Your task to perform on an android device: Do I have any events tomorrow? Image 0: 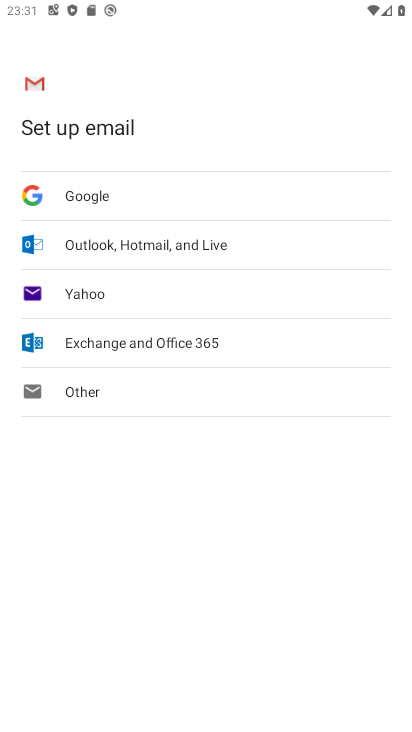
Step 0: press home button
Your task to perform on an android device: Do I have any events tomorrow? Image 1: 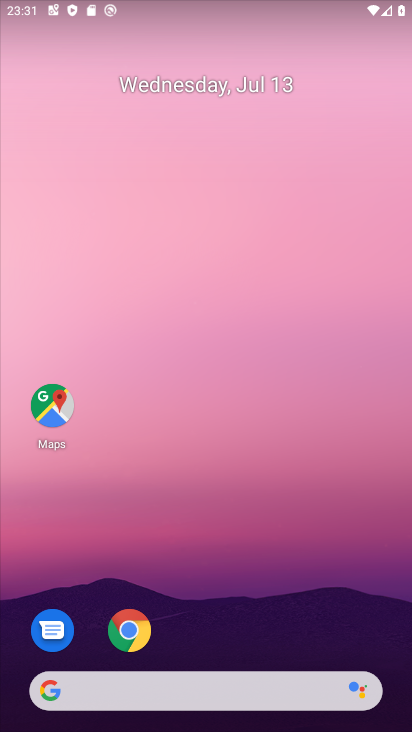
Step 1: drag from (329, 628) to (377, 232)
Your task to perform on an android device: Do I have any events tomorrow? Image 2: 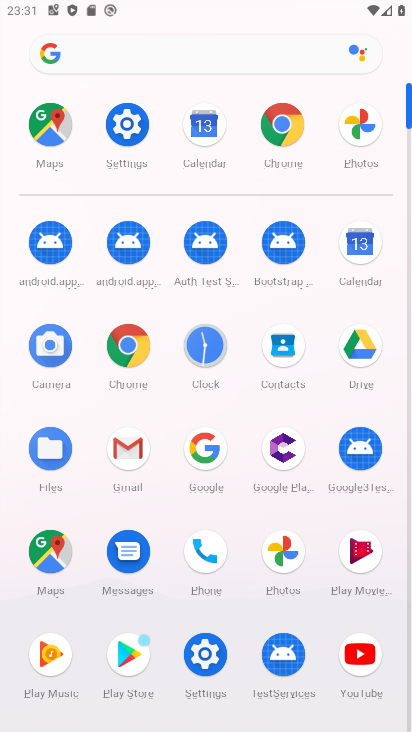
Step 2: click (356, 251)
Your task to perform on an android device: Do I have any events tomorrow? Image 3: 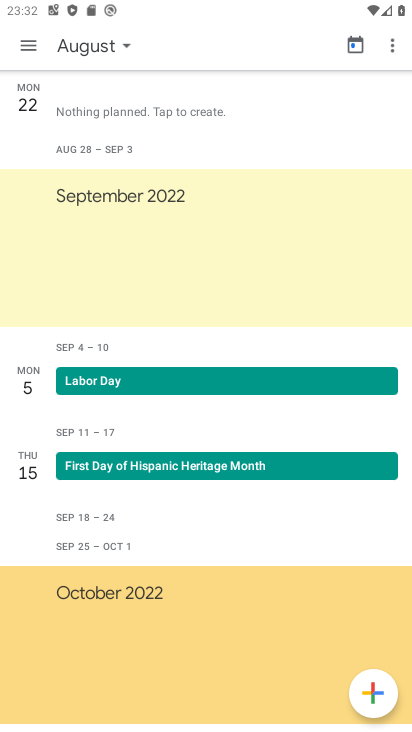
Step 3: task complete